Your task to perform on an android device: Open calendar and show me the second week of next month Image 0: 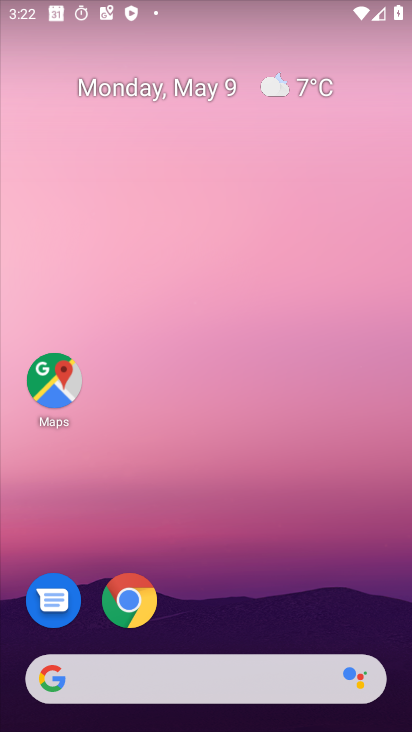
Step 0: drag from (308, 593) to (263, 20)
Your task to perform on an android device: Open calendar and show me the second week of next month Image 1: 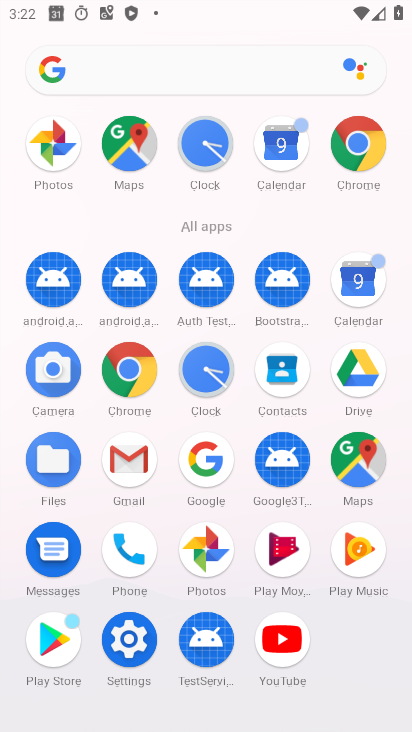
Step 1: click (364, 283)
Your task to perform on an android device: Open calendar and show me the second week of next month Image 2: 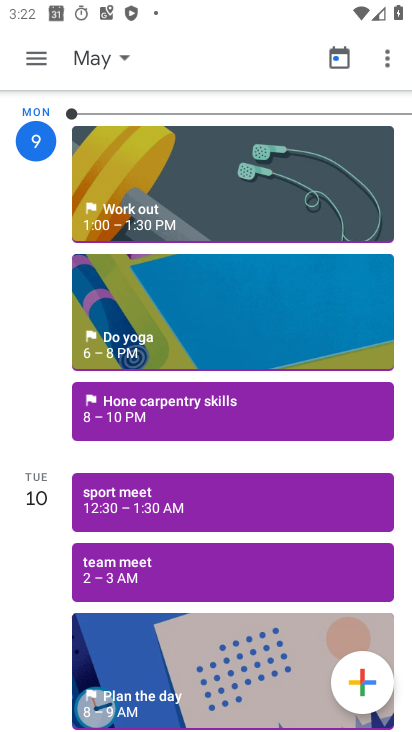
Step 2: click (34, 50)
Your task to perform on an android device: Open calendar and show me the second week of next month Image 3: 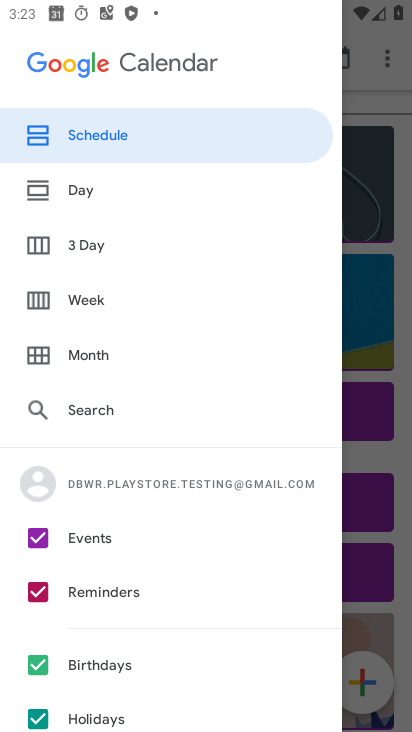
Step 3: click (367, 88)
Your task to perform on an android device: Open calendar and show me the second week of next month Image 4: 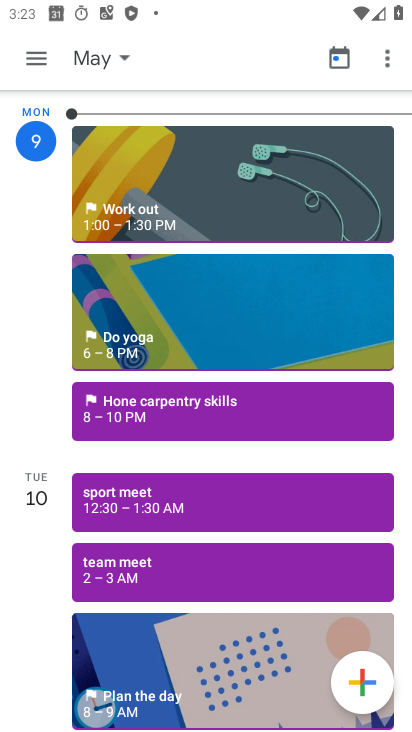
Step 4: click (110, 60)
Your task to perform on an android device: Open calendar and show me the second week of next month Image 5: 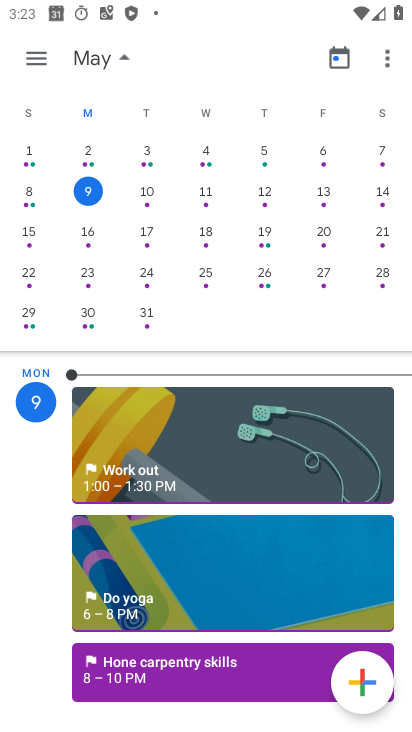
Step 5: drag from (365, 273) to (9, 281)
Your task to perform on an android device: Open calendar and show me the second week of next month Image 6: 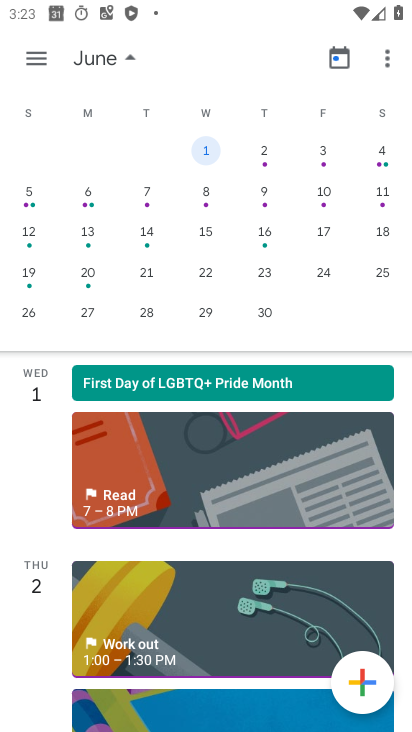
Step 6: click (145, 229)
Your task to perform on an android device: Open calendar and show me the second week of next month Image 7: 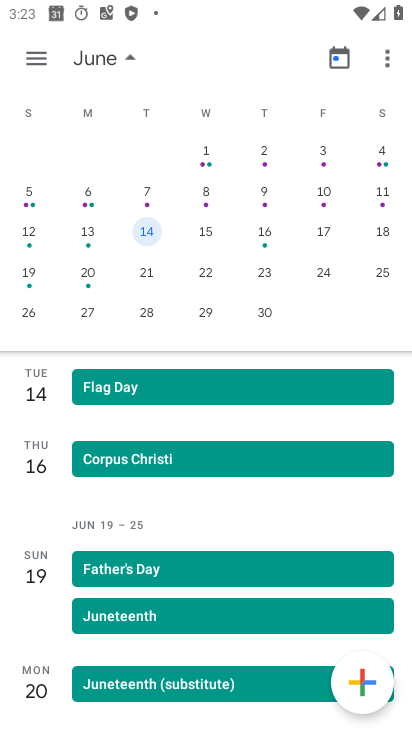
Step 7: task complete